Your task to perform on an android device: Open Android settings Image 0: 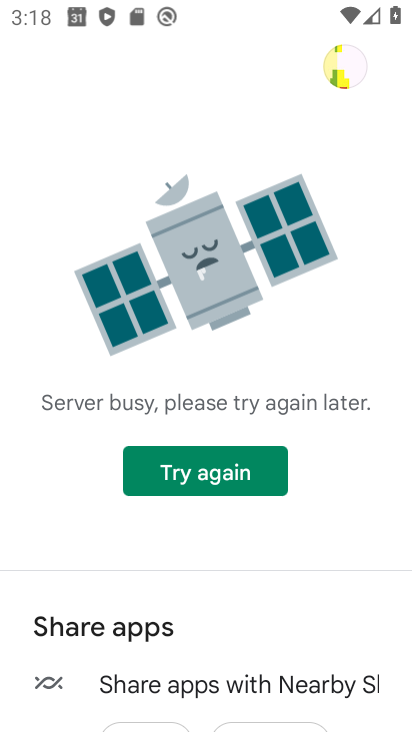
Step 0: press home button
Your task to perform on an android device: Open Android settings Image 1: 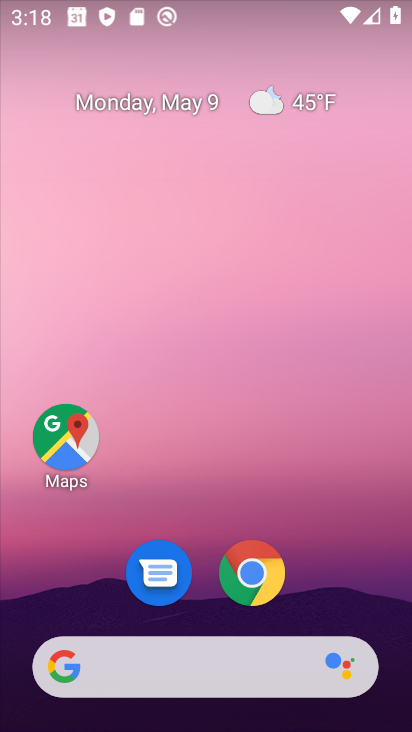
Step 1: drag from (308, 566) to (323, 140)
Your task to perform on an android device: Open Android settings Image 2: 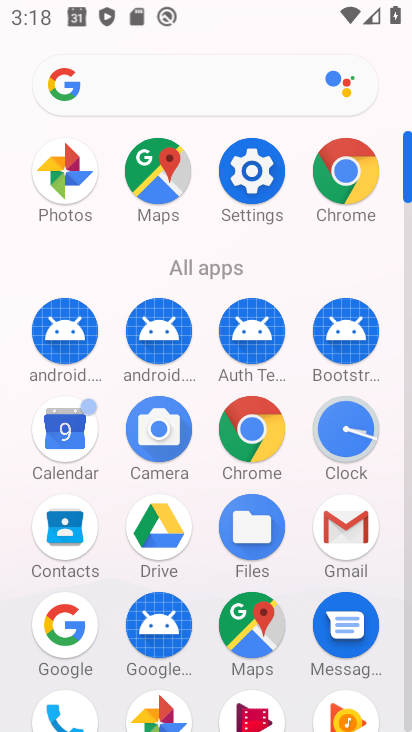
Step 2: click (242, 186)
Your task to perform on an android device: Open Android settings Image 3: 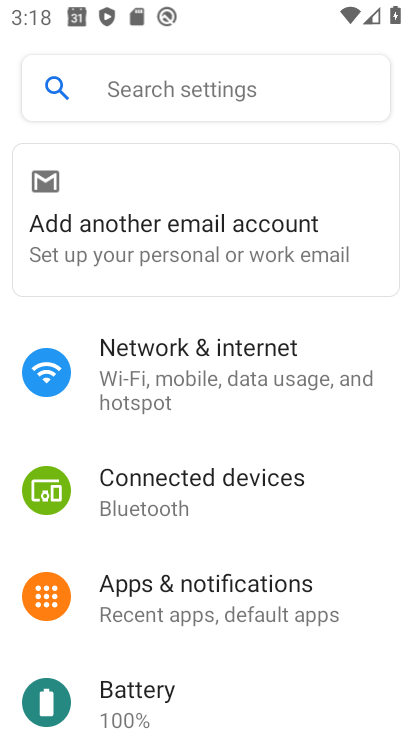
Step 3: task complete